Your task to perform on an android device: see sites visited before in the chrome app Image 0: 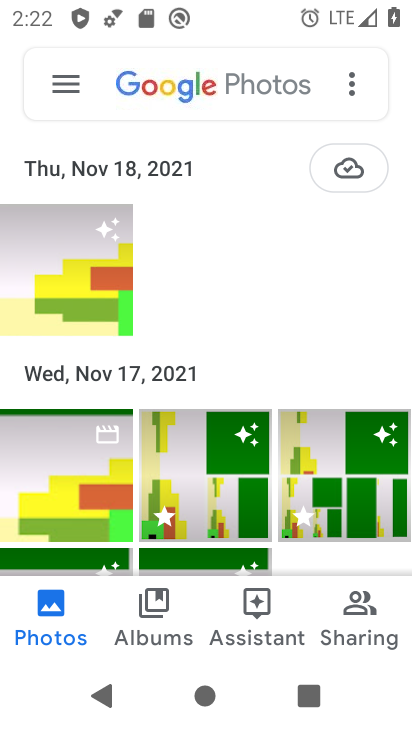
Step 0: press home button
Your task to perform on an android device: see sites visited before in the chrome app Image 1: 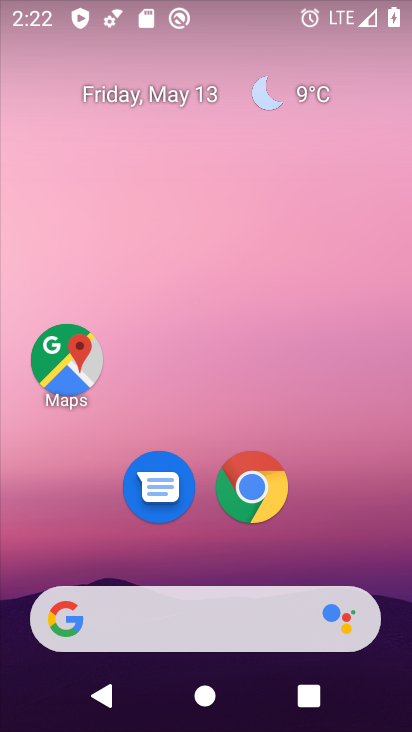
Step 1: drag from (207, 554) to (217, 61)
Your task to perform on an android device: see sites visited before in the chrome app Image 2: 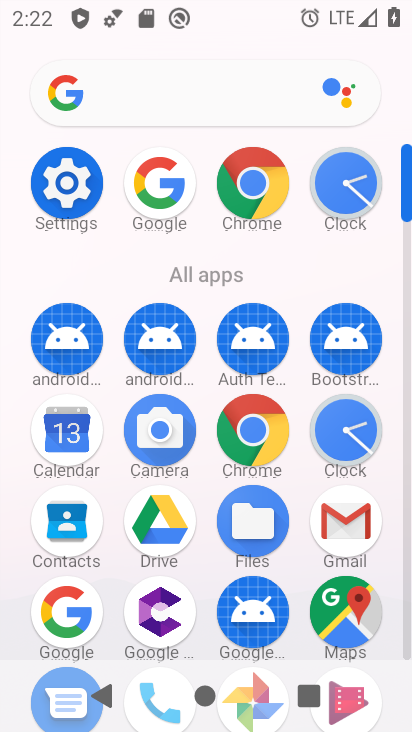
Step 2: click (247, 425)
Your task to perform on an android device: see sites visited before in the chrome app Image 3: 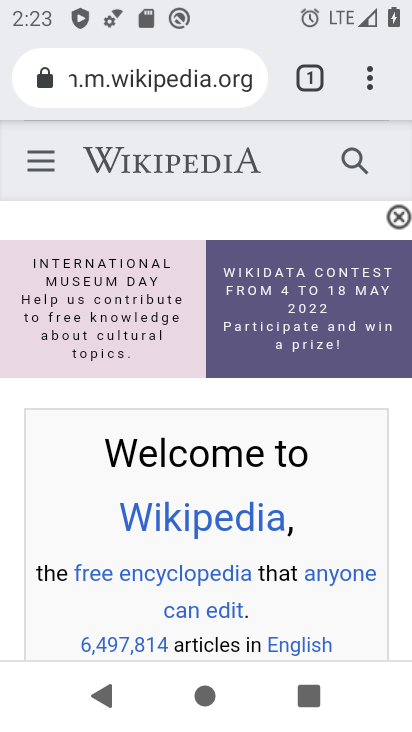
Step 3: click (363, 76)
Your task to perform on an android device: see sites visited before in the chrome app Image 4: 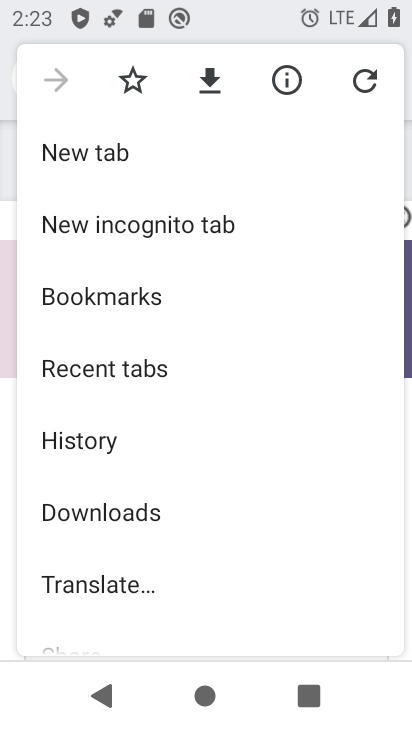
Step 4: click (143, 354)
Your task to perform on an android device: see sites visited before in the chrome app Image 5: 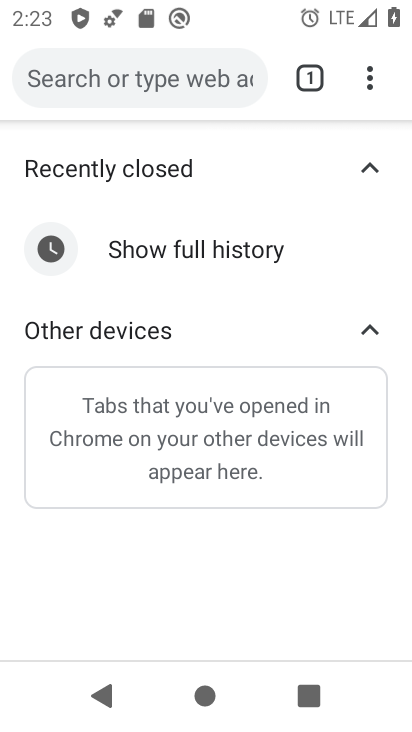
Step 5: click (212, 236)
Your task to perform on an android device: see sites visited before in the chrome app Image 6: 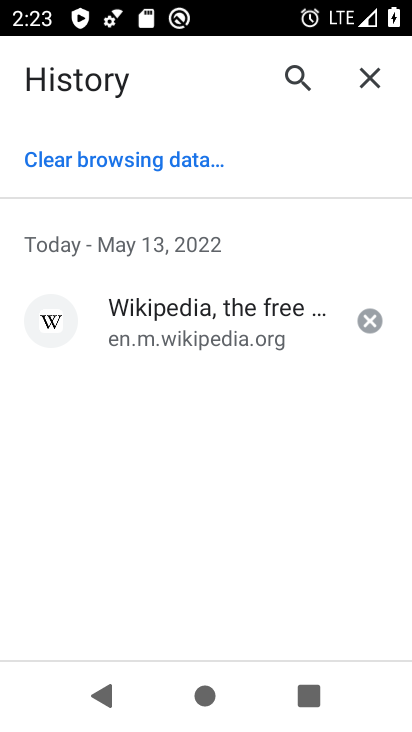
Step 6: task complete